Your task to perform on an android device: open a new tab in the chrome app Image 0: 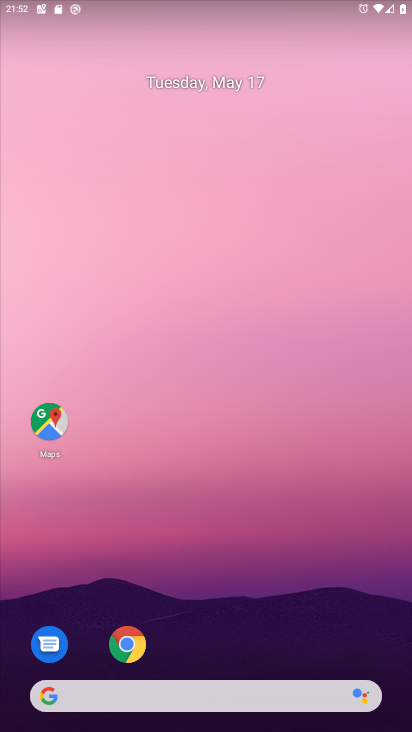
Step 0: click (130, 647)
Your task to perform on an android device: open a new tab in the chrome app Image 1: 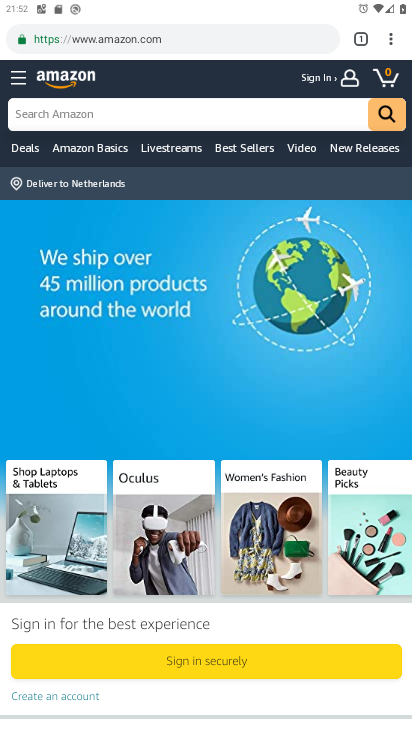
Step 1: click (357, 31)
Your task to perform on an android device: open a new tab in the chrome app Image 2: 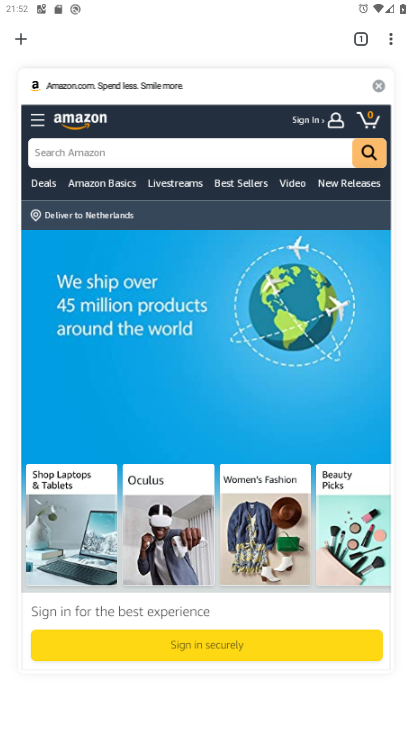
Step 2: click (20, 41)
Your task to perform on an android device: open a new tab in the chrome app Image 3: 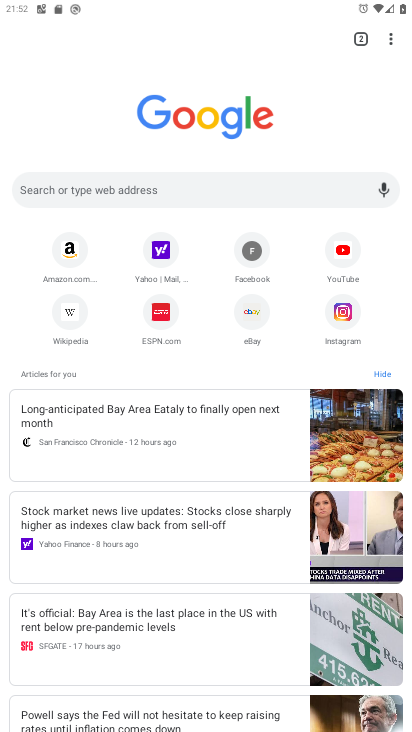
Step 3: task complete